Your task to perform on an android device: Go to Maps Image 0: 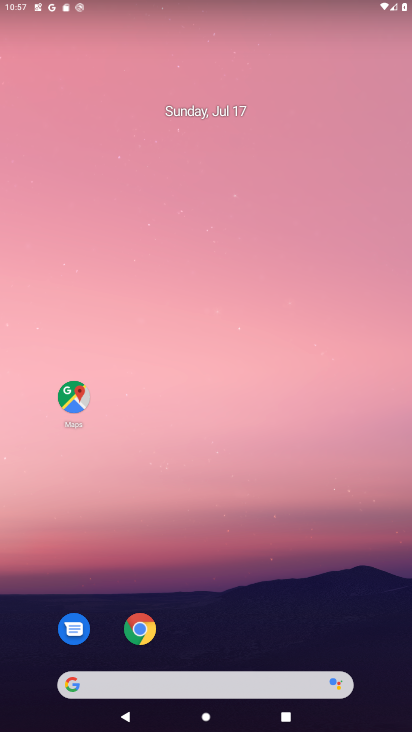
Step 0: click (74, 398)
Your task to perform on an android device: Go to Maps Image 1: 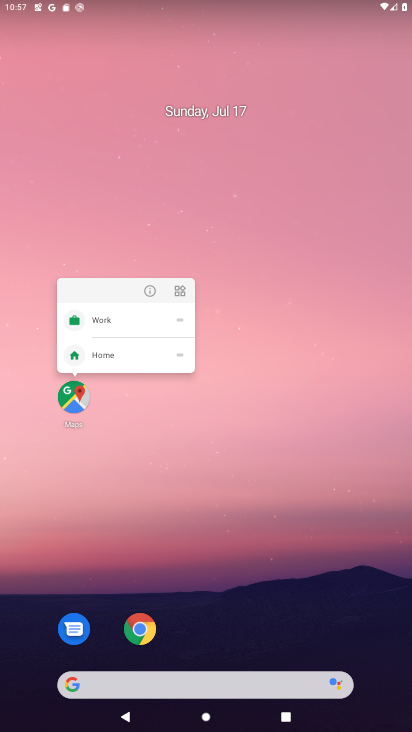
Step 1: click (70, 396)
Your task to perform on an android device: Go to Maps Image 2: 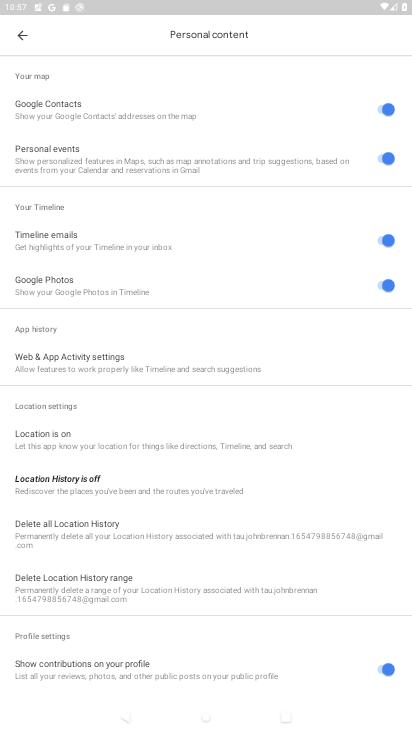
Step 2: task complete